Your task to perform on an android device: Go to wifi settings Image 0: 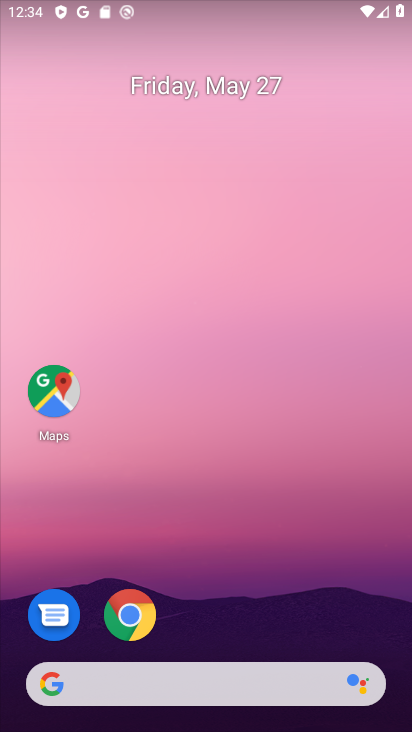
Step 0: drag from (175, 644) to (344, 99)
Your task to perform on an android device: Go to wifi settings Image 1: 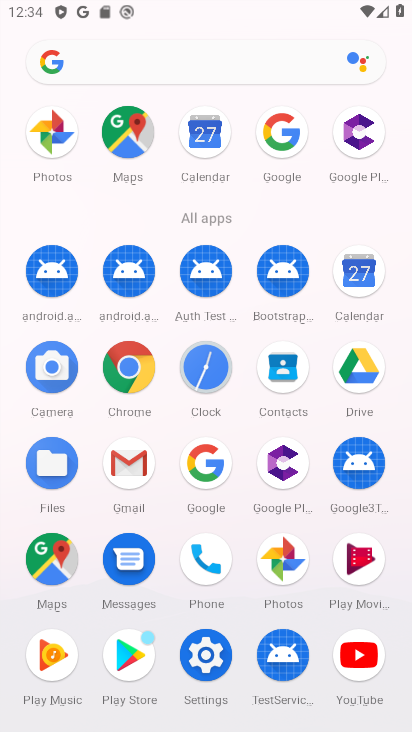
Step 1: drag from (210, 610) to (275, 335)
Your task to perform on an android device: Go to wifi settings Image 2: 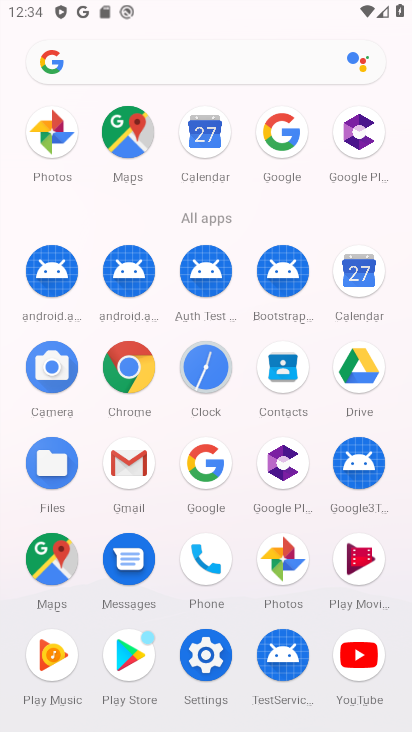
Step 2: click (222, 663)
Your task to perform on an android device: Go to wifi settings Image 3: 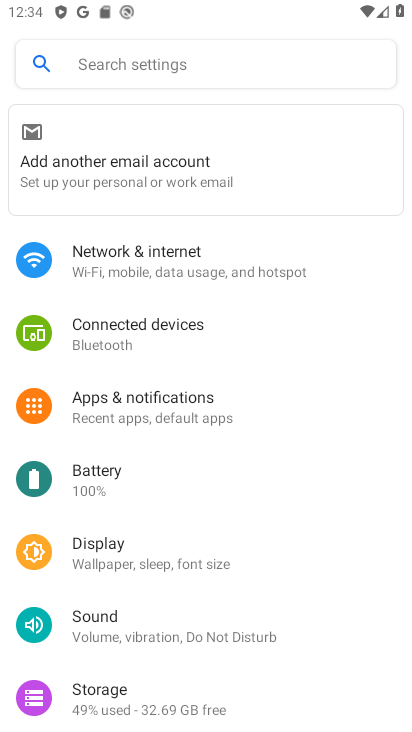
Step 3: click (193, 268)
Your task to perform on an android device: Go to wifi settings Image 4: 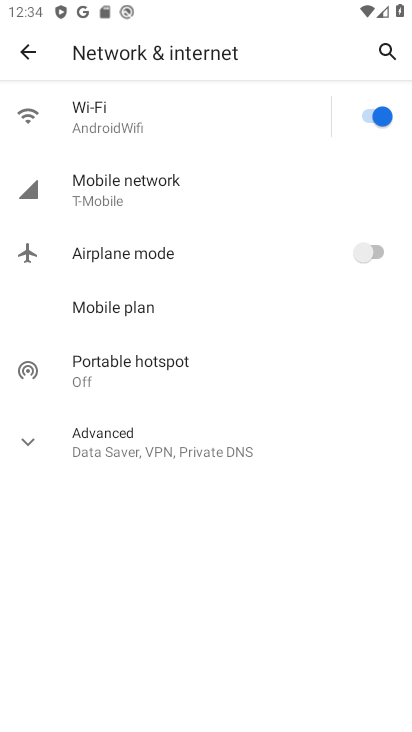
Step 4: click (182, 118)
Your task to perform on an android device: Go to wifi settings Image 5: 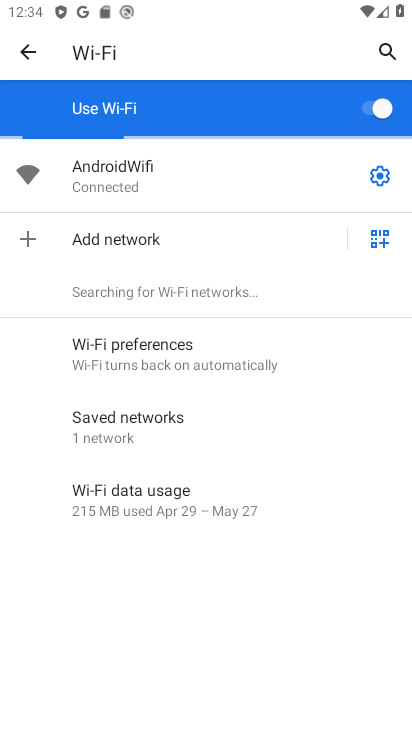
Step 5: task complete